Your task to perform on an android device: stop showing notifications on the lock screen Image 0: 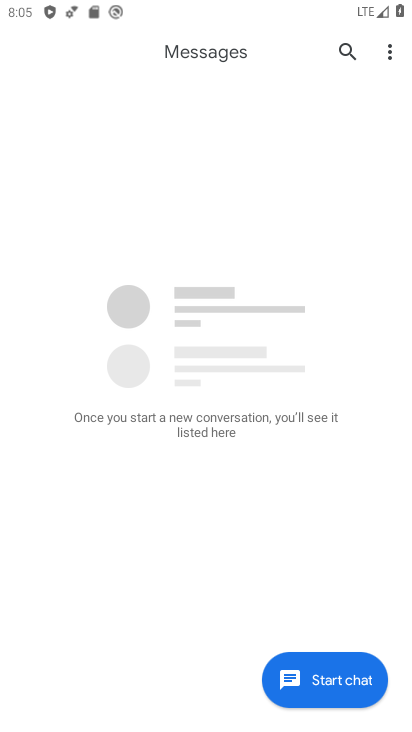
Step 0: press home button
Your task to perform on an android device: stop showing notifications on the lock screen Image 1: 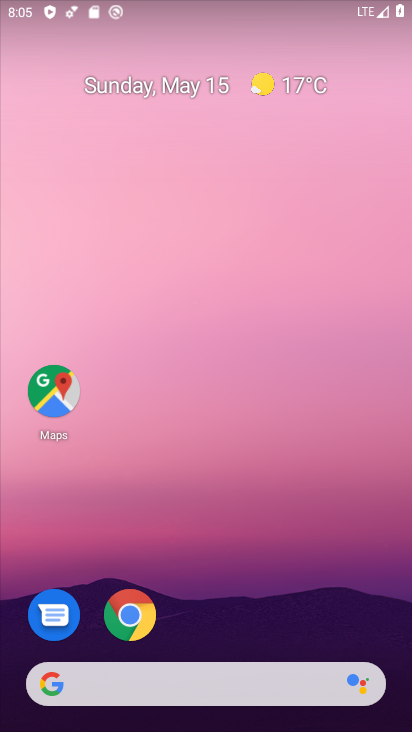
Step 1: drag from (183, 648) to (256, 36)
Your task to perform on an android device: stop showing notifications on the lock screen Image 2: 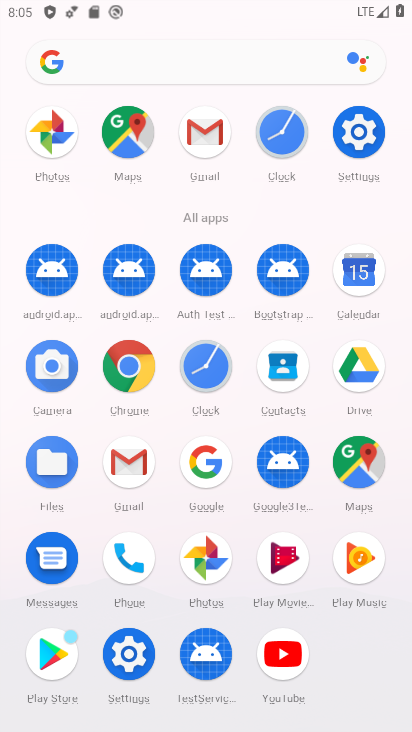
Step 2: click (352, 177)
Your task to perform on an android device: stop showing notifications on the lock screen Image 3: 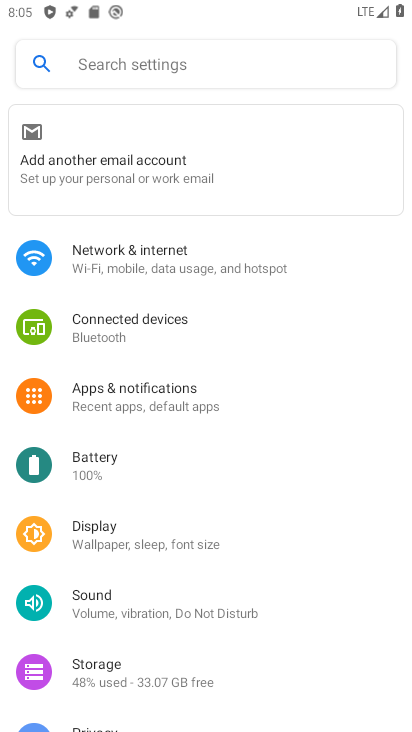
Step 3: click (123, 400)
Your task to perform on an android device: stop showing notifications on the lock screen Image 4: 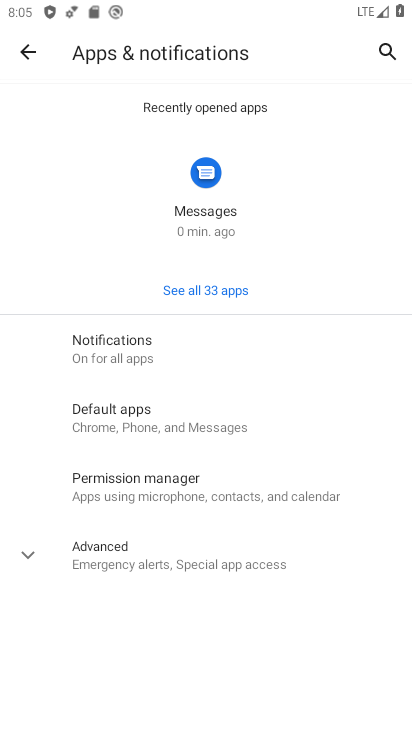
Step 4: click (172, 348)
Your task to perform on an android device: stop showing notifications on the lock screen Image 5: 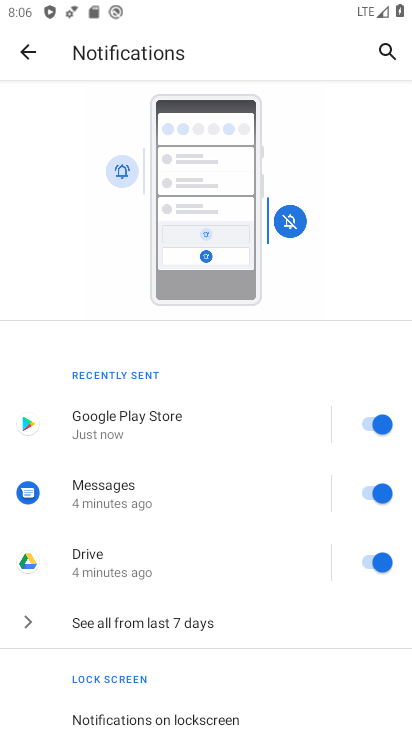
Step 5: click (171, 718)
Your task to perform on an android device: stop showing notifications on the lock screen Image 6: 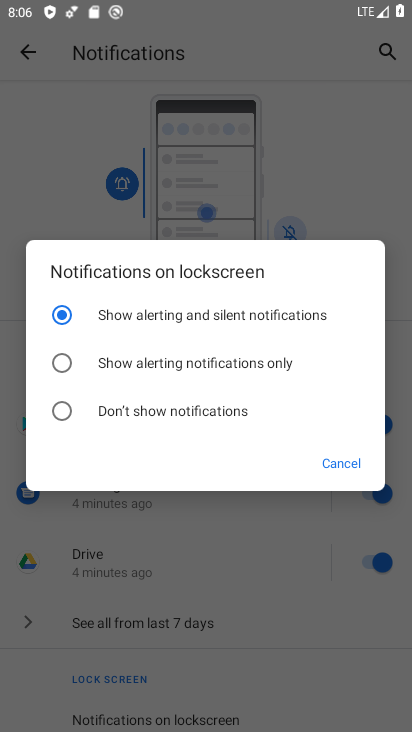
Step 6: click (61, 412)
Your task to perform on an android device: stop showing notifications on the lock screen Image 7: 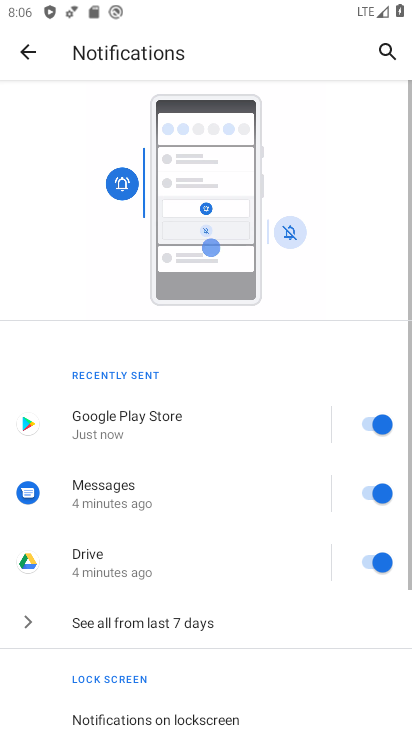
Step 7: task complete